Your task to perform on an android device: Open Youtube and go to the subscriptions tab Image 0: 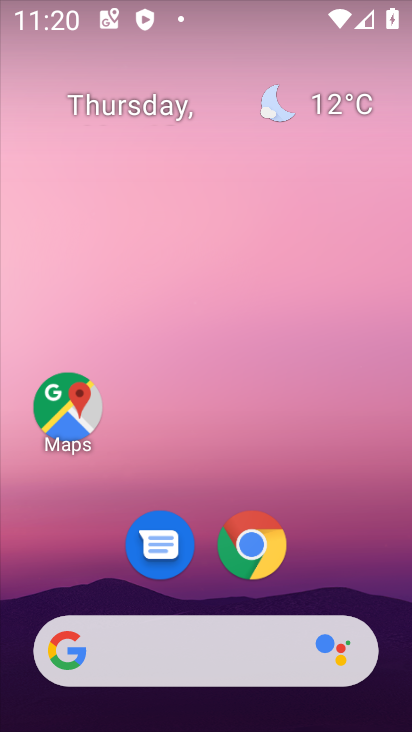
Step 0: drag from (342, 526) to (348, 106)
Your task to perform on an android device: Open Youtube and go to the subscriptions tab Image 1: 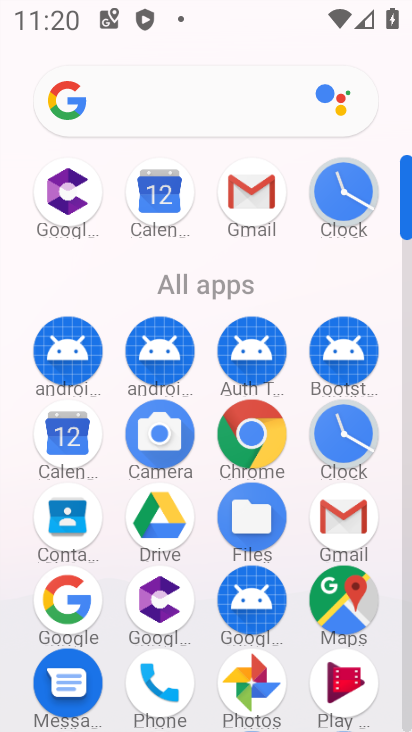
Step 1: drag from (303, 656) to (297, 201)
Your task to perform on an android device: Open Youtube and go to the subscriptions tab Image 2: 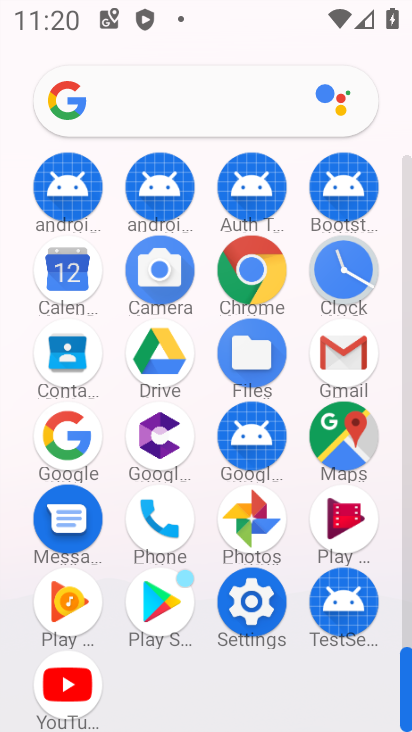
Step 2: click (80, 662)
Your task to perform on an android device: Open Youtube and go to the subscriptions tab Image 3: 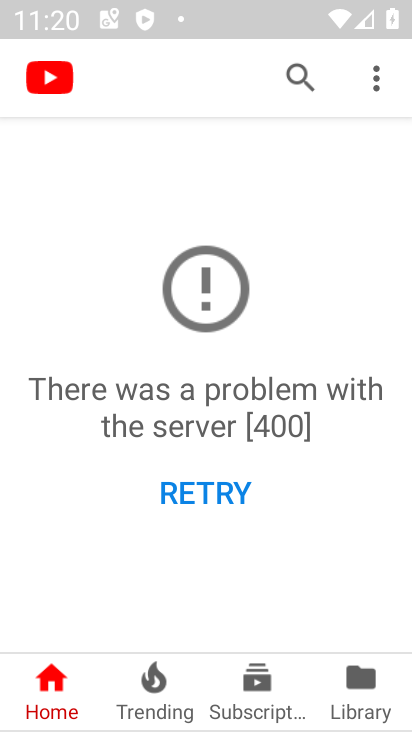
Step 3: click (263, 706)
Your task to perform on an android device: Open Youtube and go to the subscriptions tab Image 4: 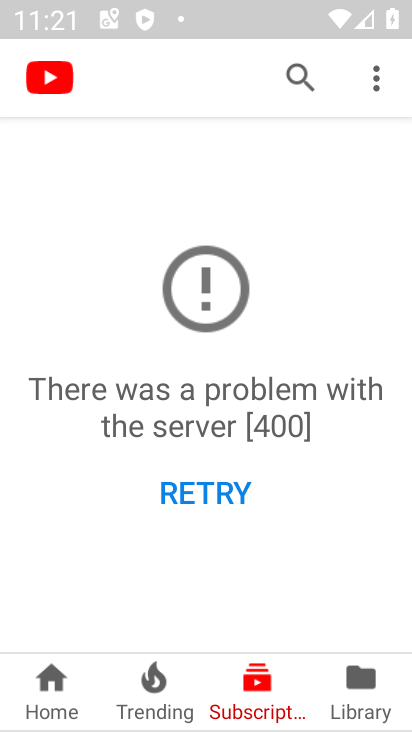
Step 4: task complete